Your task to perform on an android device: Go to Maps Image 0: 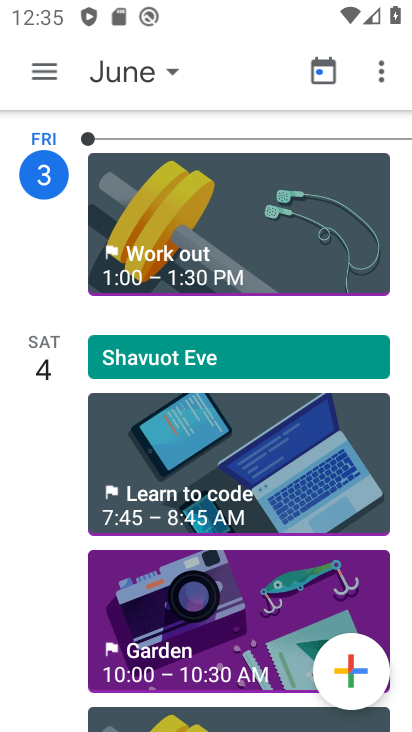
Step 0: task complete